Your task to perform on an android device: Show the shopping cart on costco.com. Add "apple airpods pro" to the cart on costco.com Image 0: 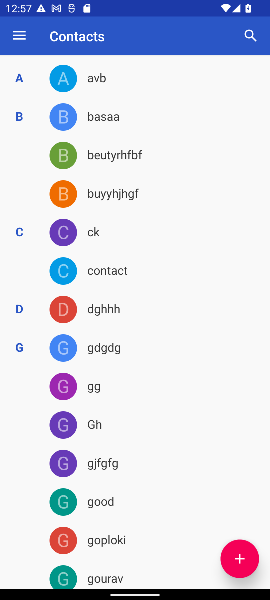
Step 0: press home button
Your task to perform on an android device: Show the shopping cart on costco.com. Add "apple airpods pro" to the cart on costco.com Image 1: 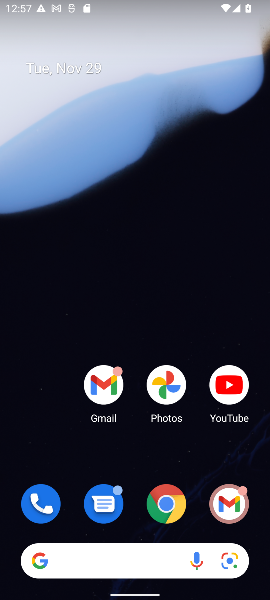
Step 1: click (167, 503)
Your task to perform on an android device: Show the shopping cart on costco.com. Add "apple airpods pro" to the cart on costco.com Image 2: 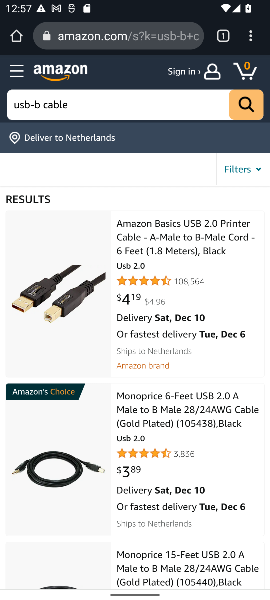
Step 2: click (111, 40)
Your task to perform on an android device: Show the shopping cart on costco.com. Add "apple airpods pro" to the cart on costco.com Image 3: 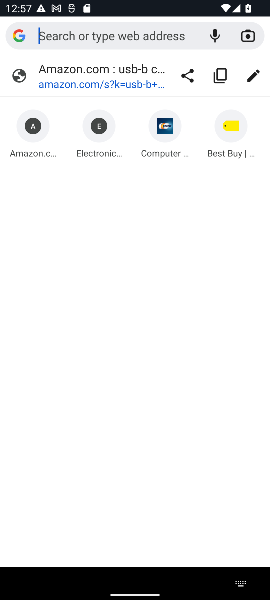
Step 3: type "costco.com"
Your task to perform on an android device: Show the shopping cart on costco.com. Add "apple airpods pro" to the cart on costco.com Image 4: 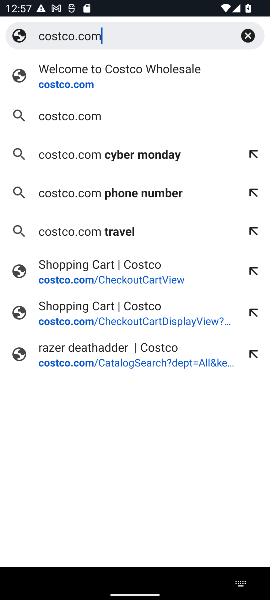
Step 4: click (58, 89)
Your task to perform on an android device: Show the shopping cart on costco.com. Add "apple airpods pro" to the cart on costco.com Image 5: 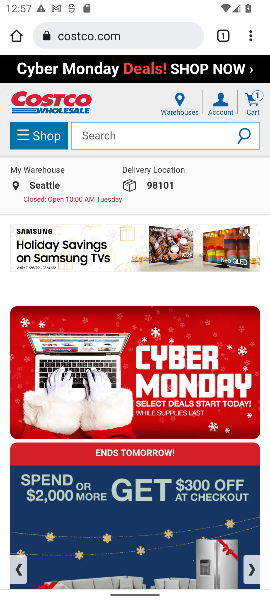
Step 5: click (248, 106)
Your task to perform on an android device: Show the shopping cart on costco.com. Add "apple airpods pro" to the cart on costco.com Image 6: 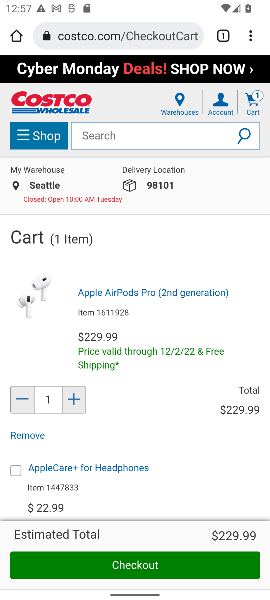
Step 6: drag from (119, 412) to (126, 260)
Your task to perform on an android device: Show the shopping cart on costco.com. Add "apple airpods pro" to the cart on costco.com Image 7: 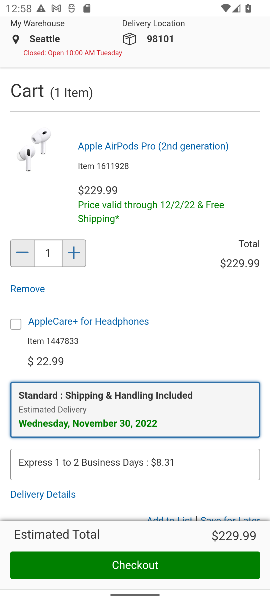
Step 7: drag from (235, 177) to (241, 308)
Your task to perform on an android device: Show the shopping cart on costco.com. Add "apple airpods pro" to the cart on costco.com Image 8: 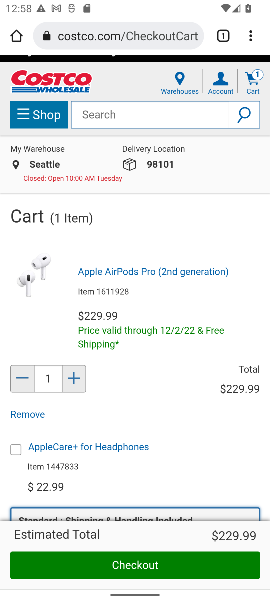
Step 8: click (93, 112)
Your task to perform on an android device: Show the shopping cart on costco.com. Add "apple airpods pro" to the cart on costco.com Image 9: 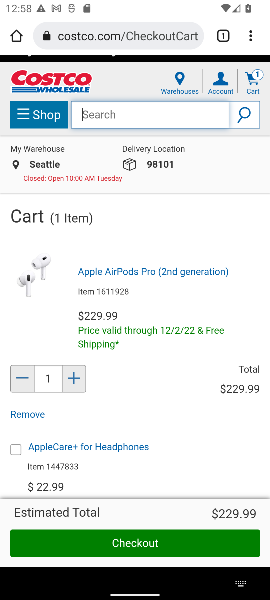
Step 9: type "apple airpods pro"
Your task to perform on an android device: Show the shopping cart on costco.com. Add "apple airpods pro" to the cart on costco.com Image 10: 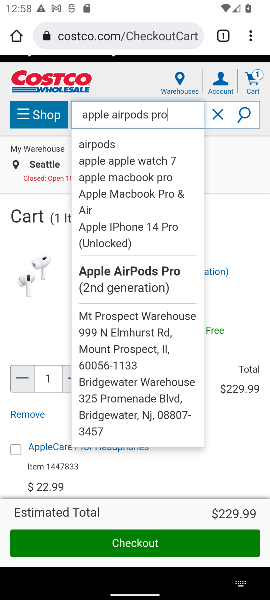
Step 10: click (248, 121)
Your task to perform on an android device: Show the shopping cart on costco.com. Add "apple airpods pro" to the cart on costco.com Image 11: 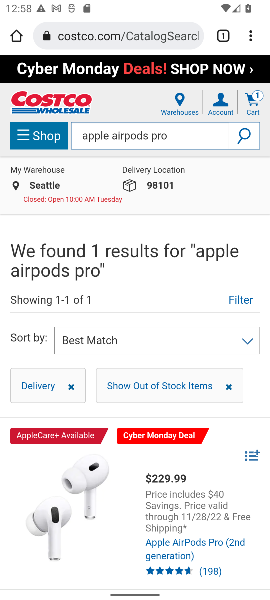
Step 11: drag from (127, 407) to (134, 262)
Your task to perform on an android device: Show the shopping cart on costco.com. Add "apple airpods pro" to the cart on costco.com Image 12: 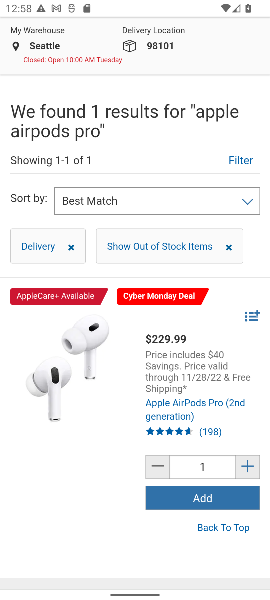
Step 12: click (206, 500)
Your task to perform on an android device: Show the shopping cart on costco.com. Add "apple airpods pro" to the cart on costco.com Image 13: 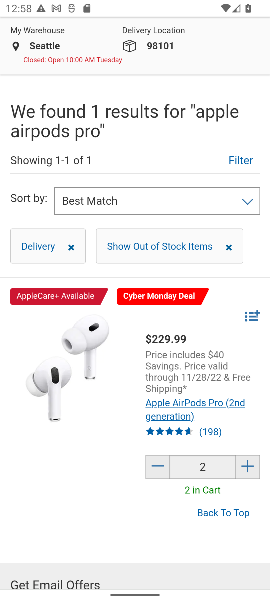
Step 13: task complete